Your task to perform on an android device: change the clock style Image 0: 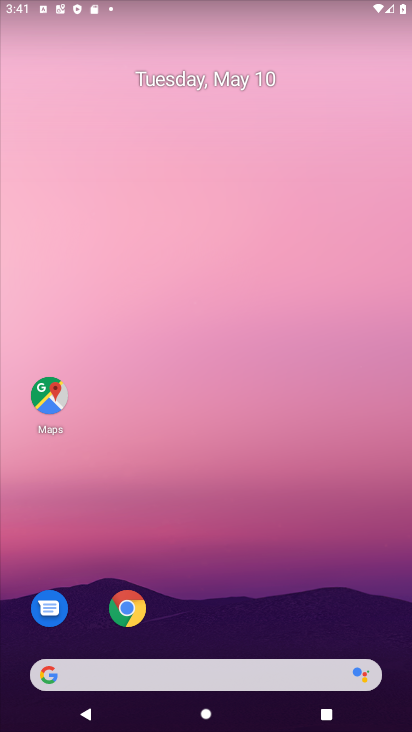
Step 0: drag from (386, 631) to (323, 251)
Your task to perform on an android device: change the clock style Image 1: 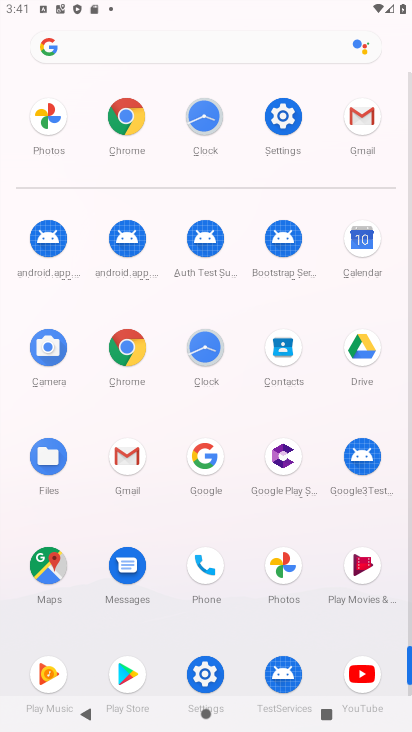
Step 1: click (202, 342)
Your task to perform on an android device: change the clock style Image 2: 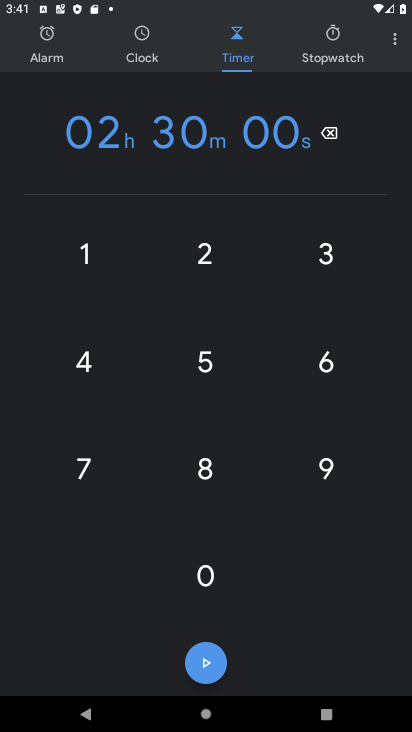
Step 2: click (396, 44)
Your task to perform on an android device: change the clock style Image 3: 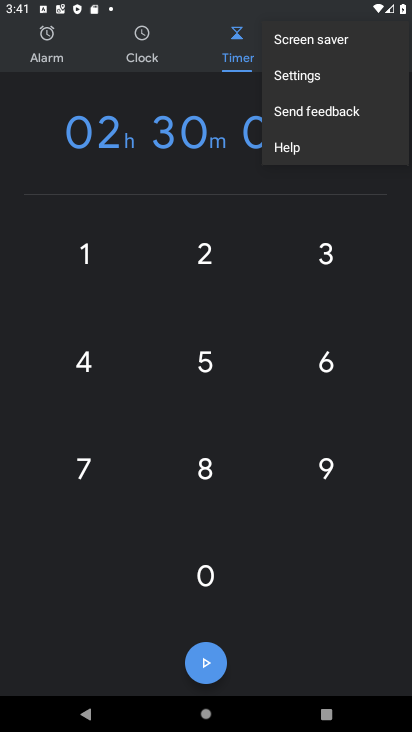
Step 3: click (292, 79)
Your task to perform on an android device: change the clock style Image 4: 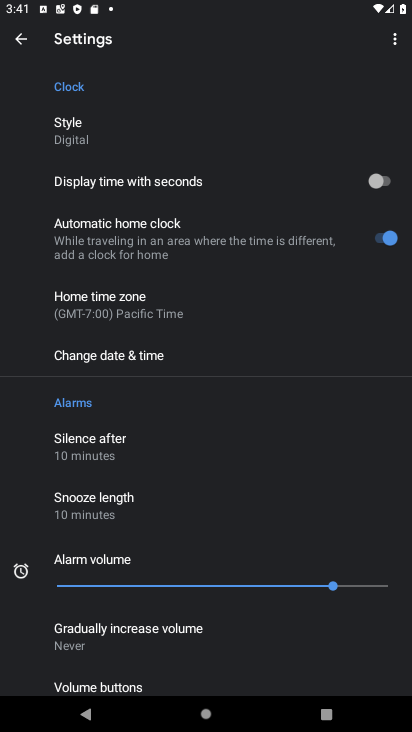
Step 4: click (61, 125)
Your task to perform on an android device: change the clock style Image 5: 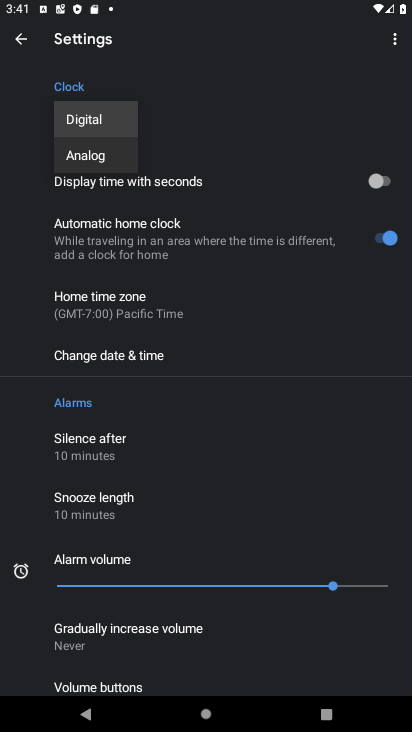
Step 5: click (79, 151)
Your task to perform on an android device: change the clock style Image 6: 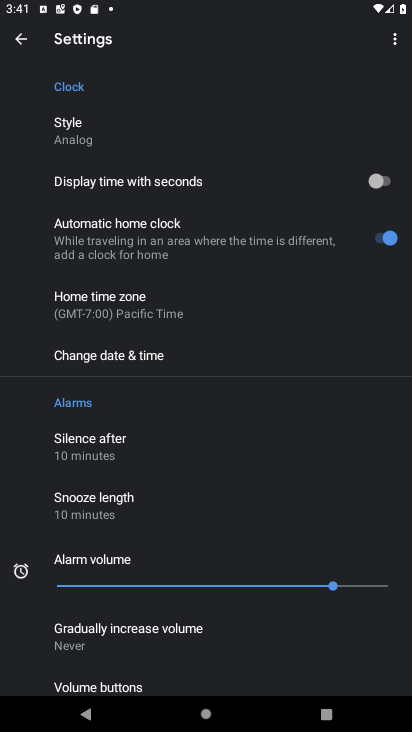
Step 6: task complete